Your task to perform on an android device: toggle translation in the chrome app Image 0: 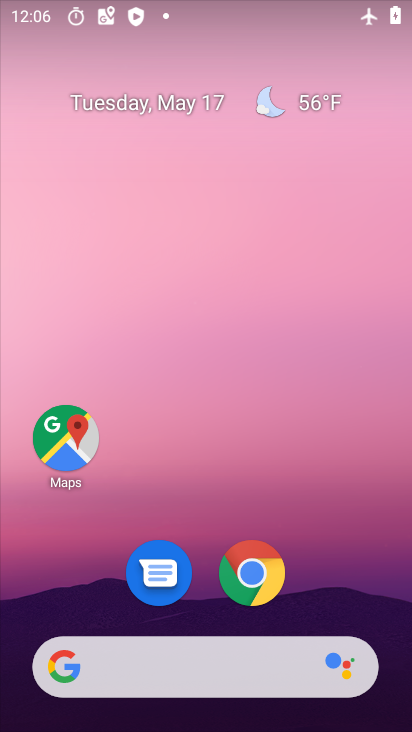
Step 0: click (261, 570)
Your task to perform on an android device: toggle translation in the chrome app Image 1: 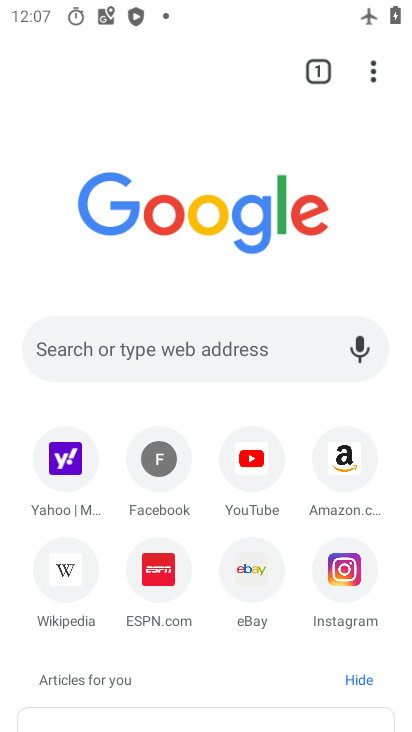
Step 1: click (377, 64)
Your task to perform on an android device: toggle translation in the chrome app Image 2: 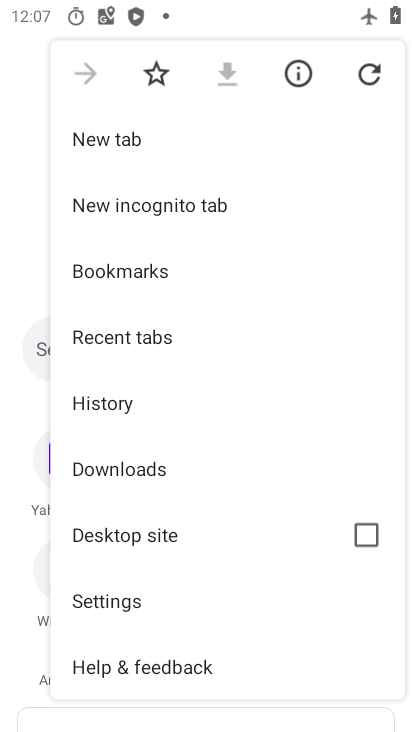
Step 2: click (155, 603)
Your task to perform on an android device: toggle translation in the chrome app Image 3: 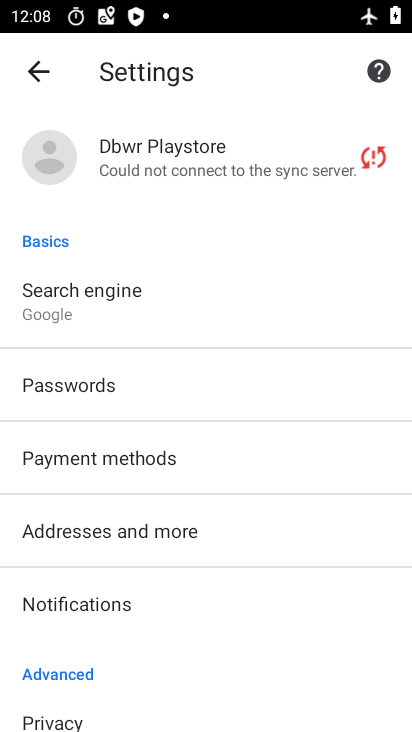
Step 3: drag from (152, 679) to (284, 5)
Your task to perform on an android device: toggle translation in the chrome app Image 4: 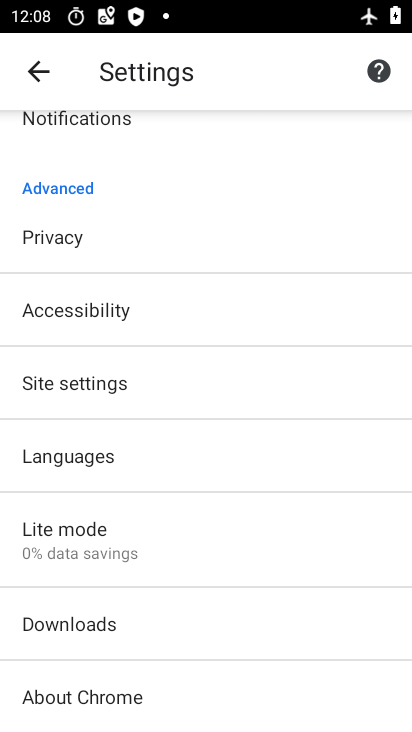
Step 4: click (158, 456)
Your task to perform on an android device: toggle translation in the chrome app Image 5: 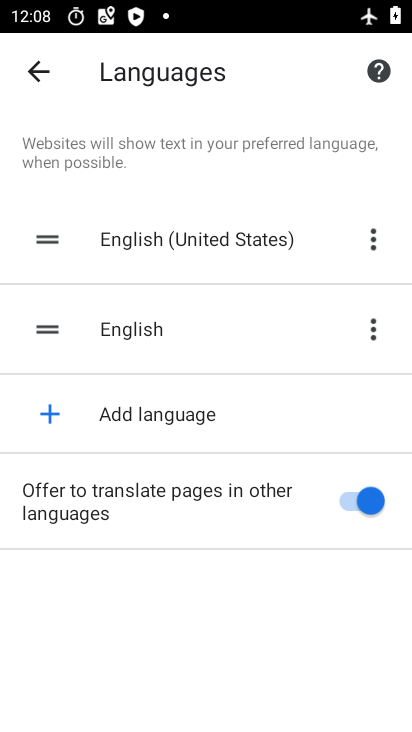
Step 5: click (353, 501)
Your task to perform on an android device: toggle translation in the chrome app Image 6: 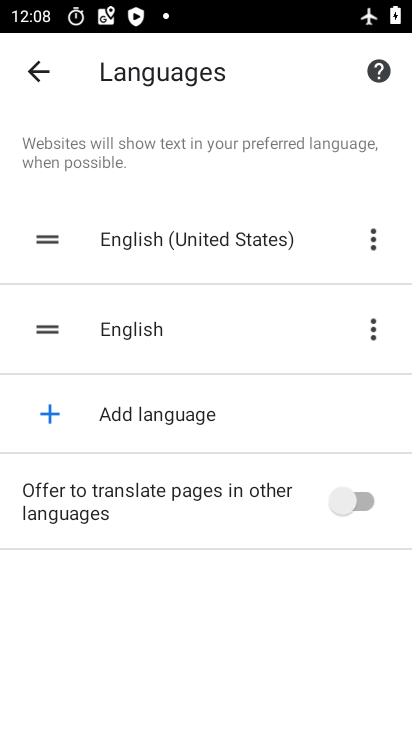
Step 6: task complete